Your task to perform on an android device: open sync settings in chrome Image 0: 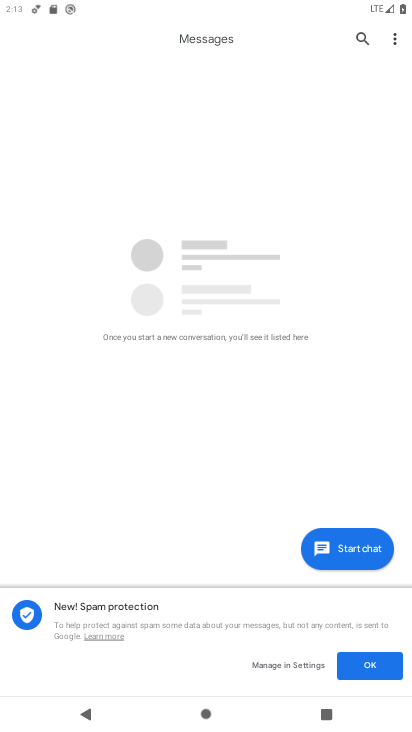
Step 0: press home button
Your task to perform on an android device: open sync settings in chrome Image 1: 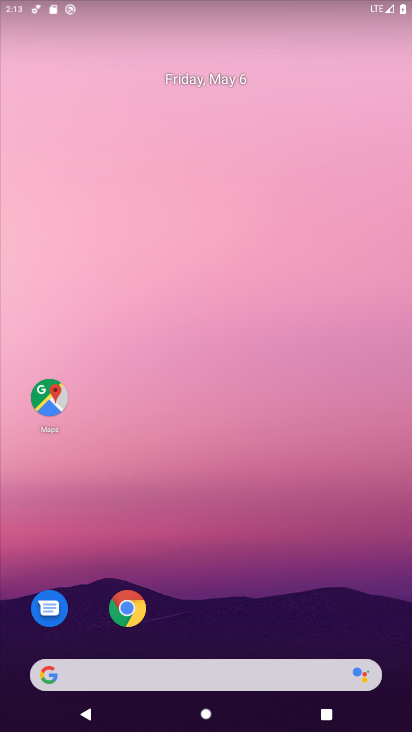
Step 1: drag from (154, 605) to (165, 2)
Your task to perform on an android device: open sync settings in chrome Image 2: 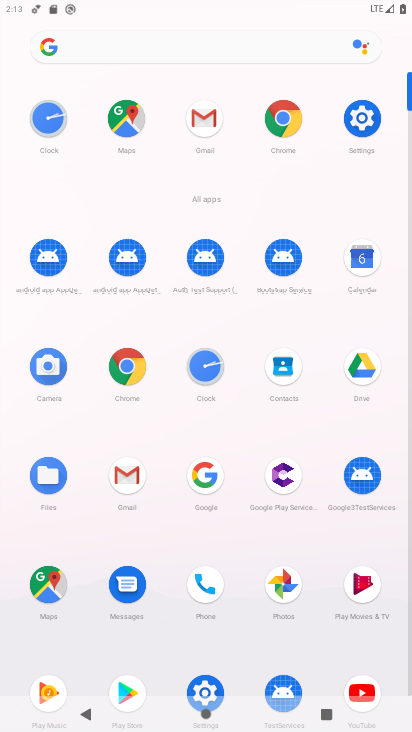
Step 2: click (126, 382)
Your task to perform on an android device: open sync settings in chrome Image 3: 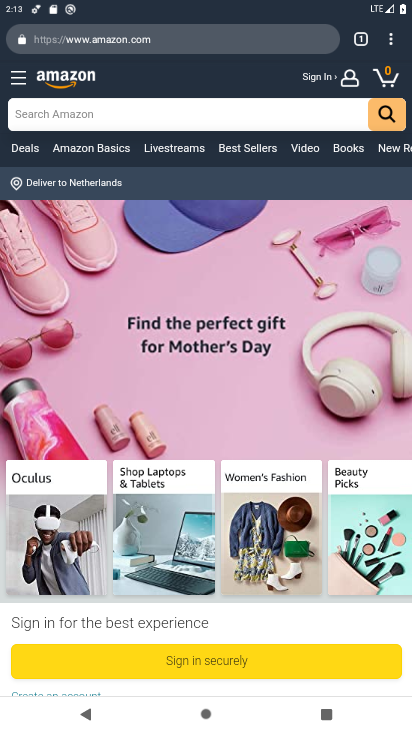
Step 3: click (388, 46)
Your task to perform on an android device: open sync settings in chrome Image 4: 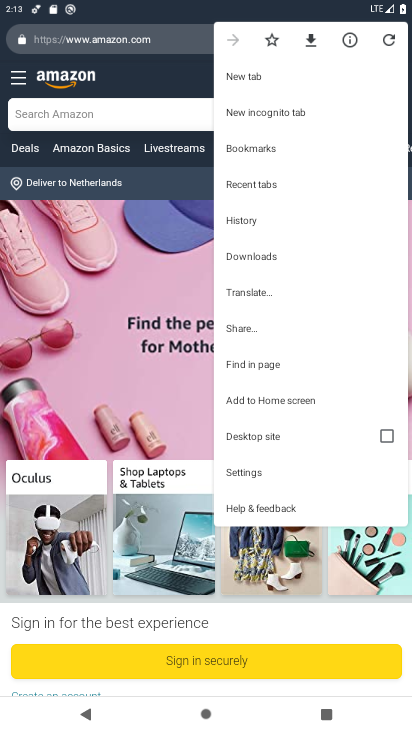
Step 4: click (263, 473)
Your task to perform on an android device: open sync settings in chrome Image 5: 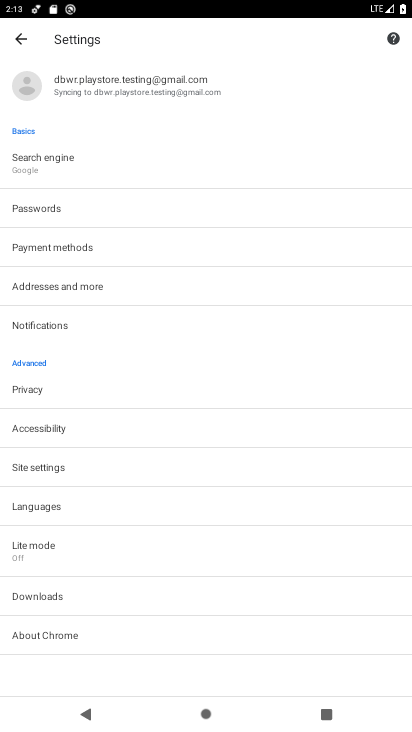
Step 5: click (90, 91)
Your task to perform on an android device: open sync settings in chrome Image 6: 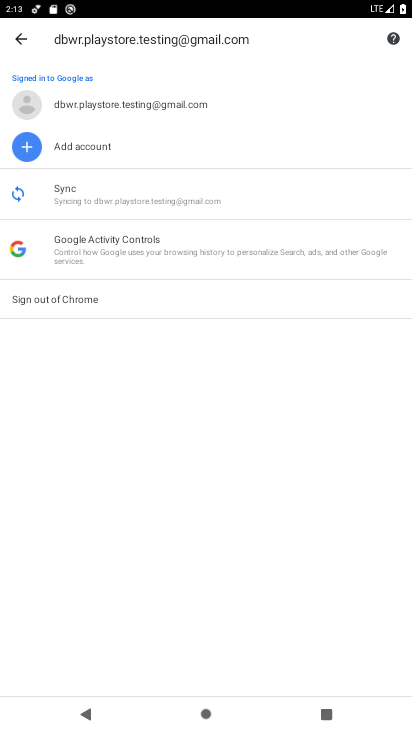
Step 6: click (113, 201)
Your task to perform on an android device: open sync settings in chrome Image 7: 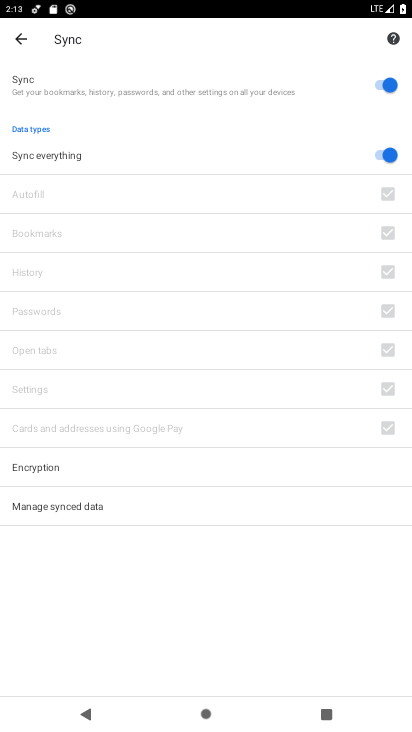
Step 7: task complete